Your task to perform on an android device: Open battery settings Image 0: 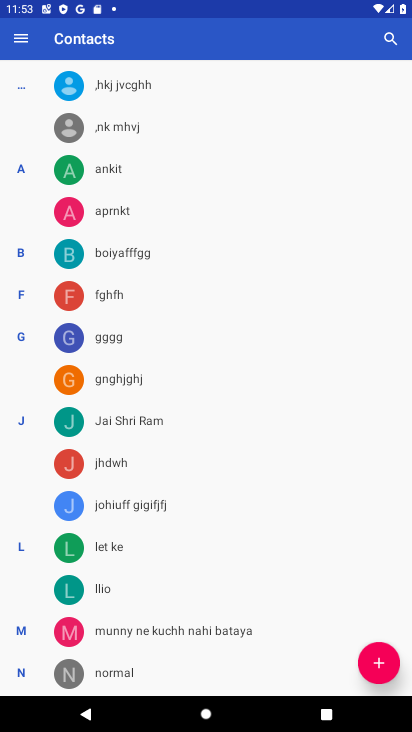
Step 0: press home button
Your task to perform on an android device: Open battery settings Image 1: 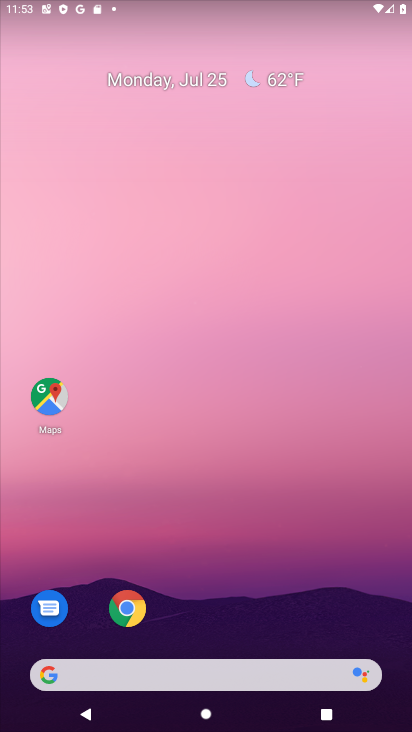
Step 1: drag from (262, 571) to (304, 212)
Your task to perform on an android device: Open battery settings Image 2: 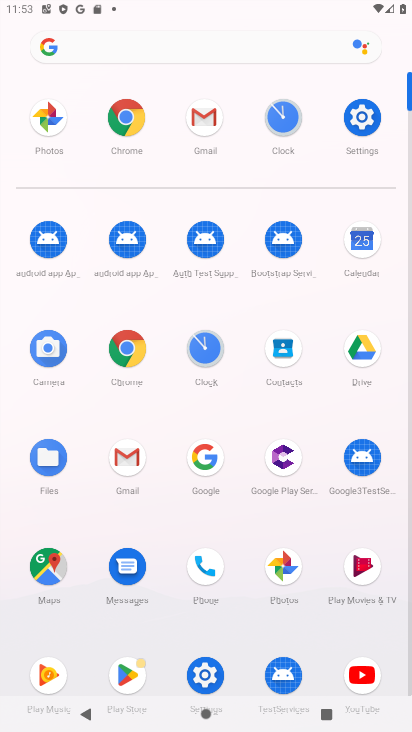
Step 2: click (365, 125)
Your task to perform on an android device: Open battery settings Image 3: 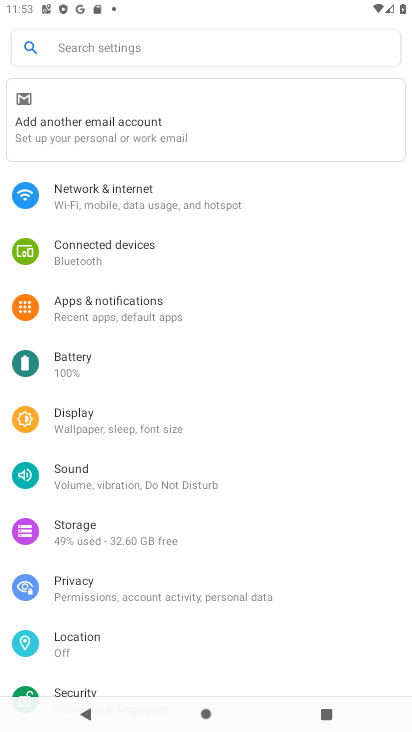
Step 3: click (87, 353)
Your task to perform on an android device: Open battery settings Image 4: 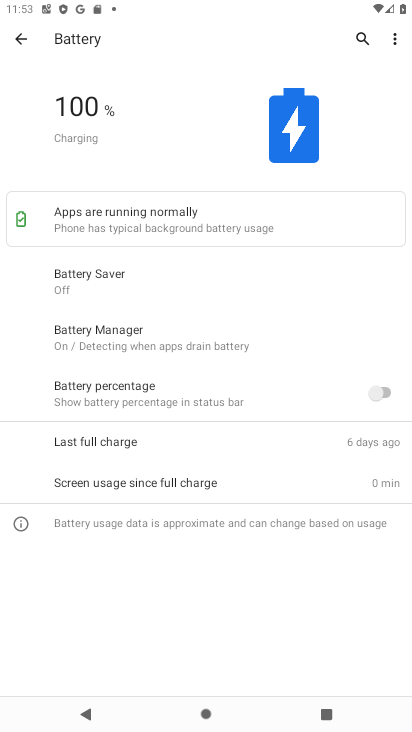
Step 4: task complete